Your task to perform on an android device: Go to internet settings Image 0: 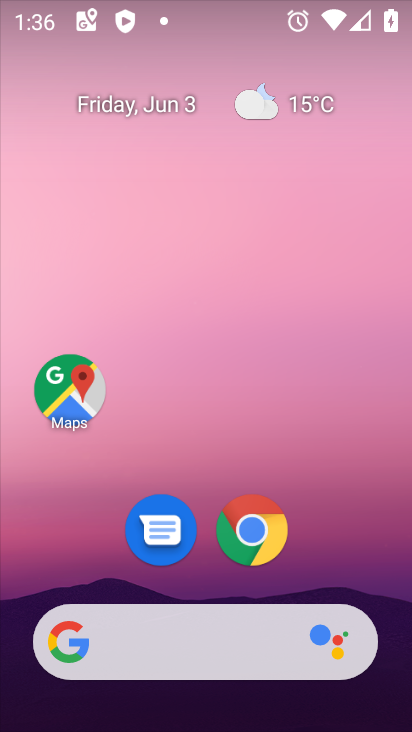
Step 0: drag from (356, 508) to (292, 53)
Your task to perform on an android device: Go to internet settings Image 1: 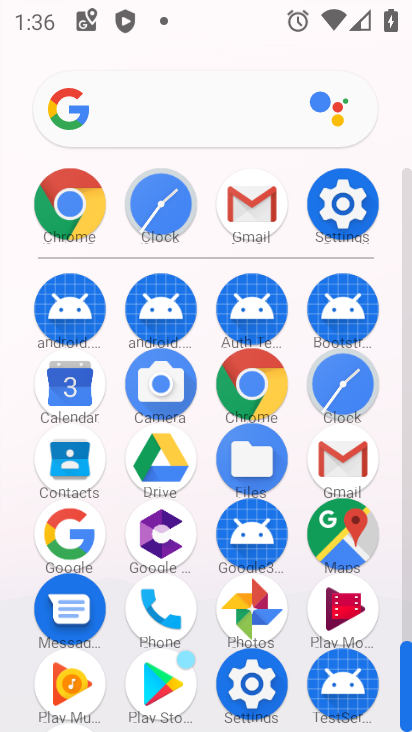
Step 1: click (330, 188)
Your task to perform on an android device: Go to internet settings Image 2: 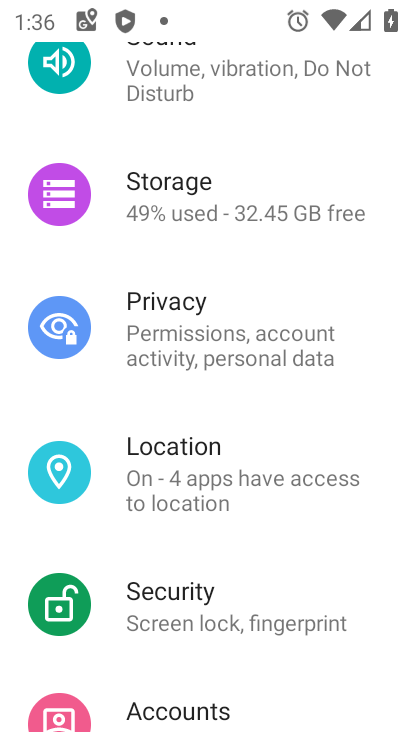
Step 2: drag from (390, 58) to (295, 713)
Your task to perform on an android device: Go to internet settings Image 3: 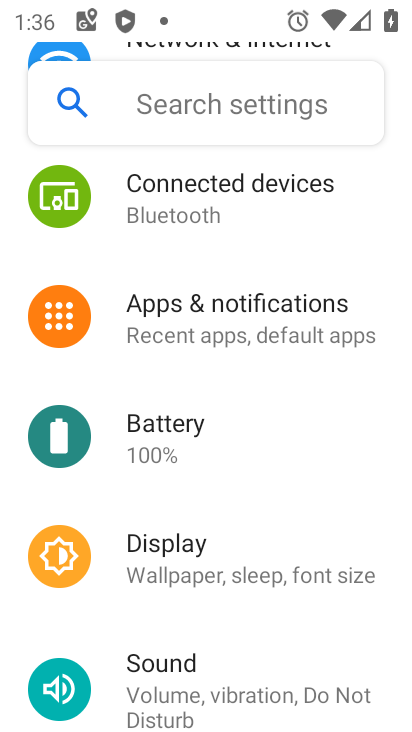
Step 3: drag from (392, 127) to (356, 600)
Your task to perform on an android device: Go to internet settings Image 4: 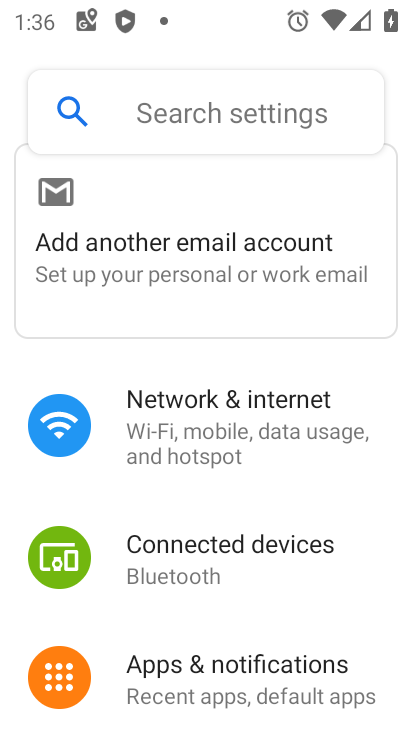
Step 4: click (220, 431)
Your task to perform on an android device: Go to internet settings Image 5: 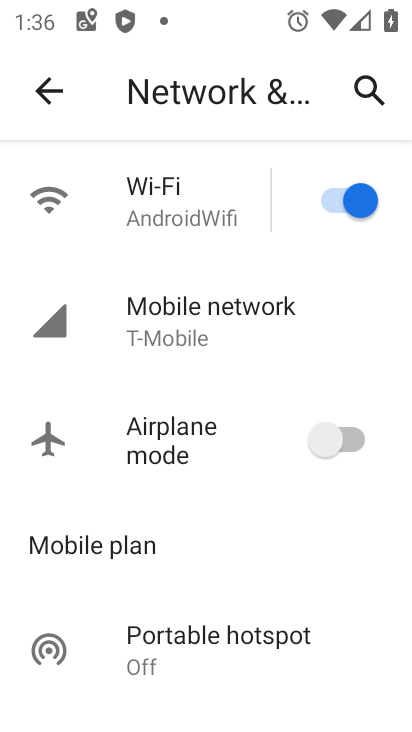
Step 5: task complete